Your task to perform on an android device: turn off notifications settings in the gmail app Image 0: 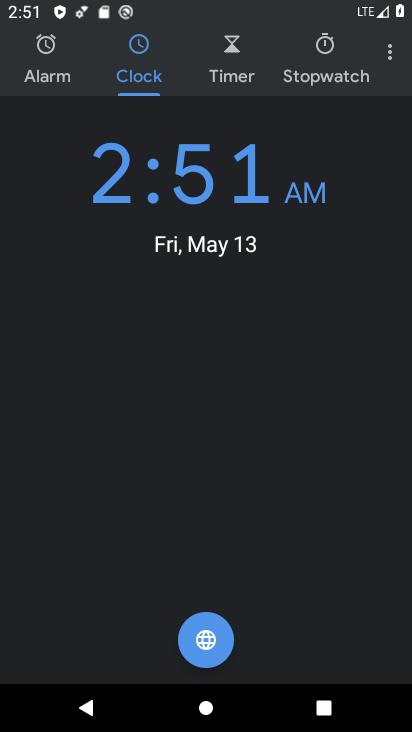
Step 0: press home button
Your task to perform on an android device: turn off notifications settings in the gmail app Image 1: 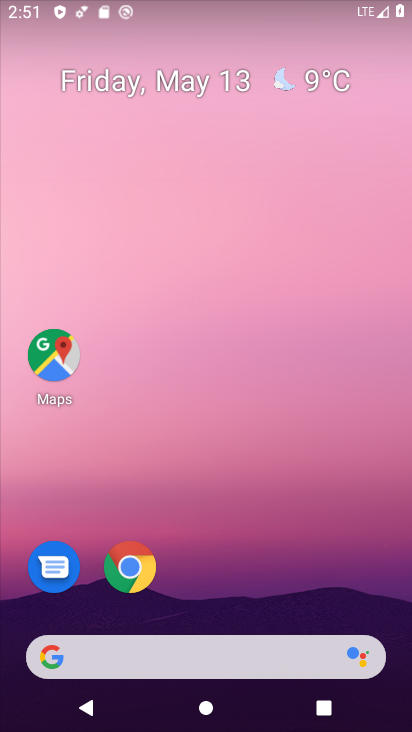
Step 1: drag from (319, 594) to (142, 2)
Your task to perform on an android device: turn off notifications settings in the gmail app Image 2: 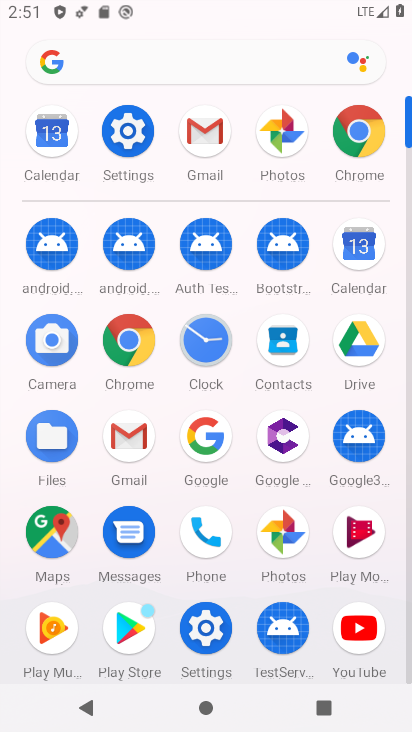
Step 2: click (193, 135)
Your task to perform on an android device: turn off notifications settings in the gmail app Image 3: 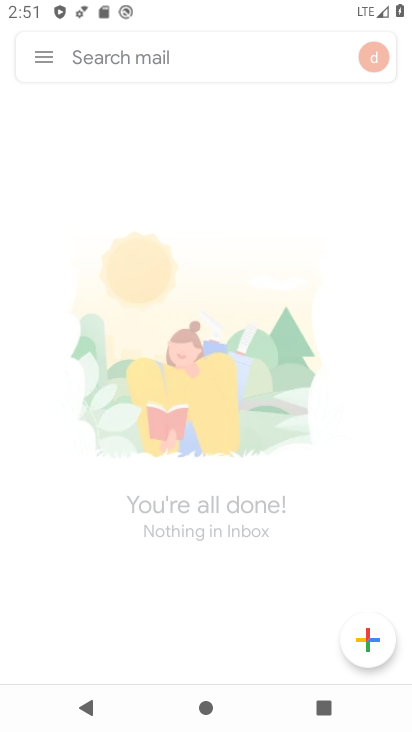
Step 3: click (39, 56)
Your task to perform on an android device: turn off notifications settings in the gmail app Image 4: 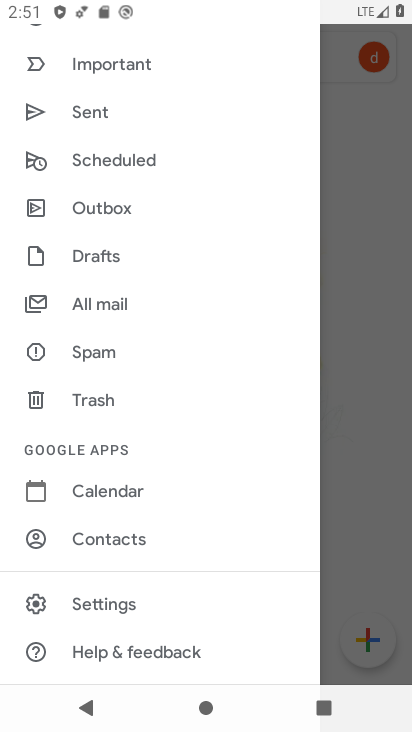
Step 4: click (116, 601)
Your task to perform on an android device: turn off notifications settings in the gmail app Image 5: 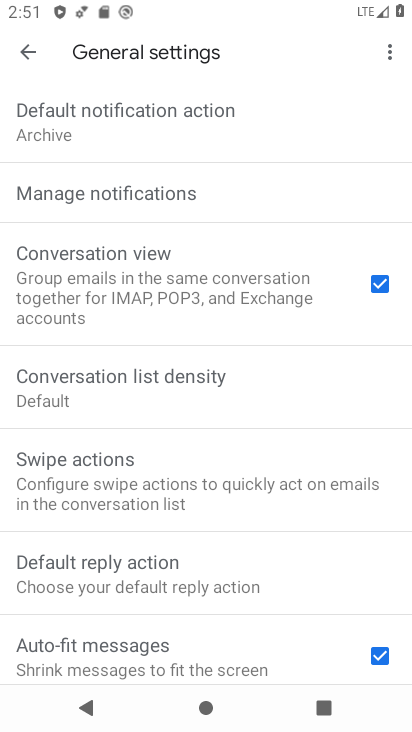
Step 5: click (90, 194)
Your task to perform on an android device: turn off notifications settings in the gmail app Image 6: 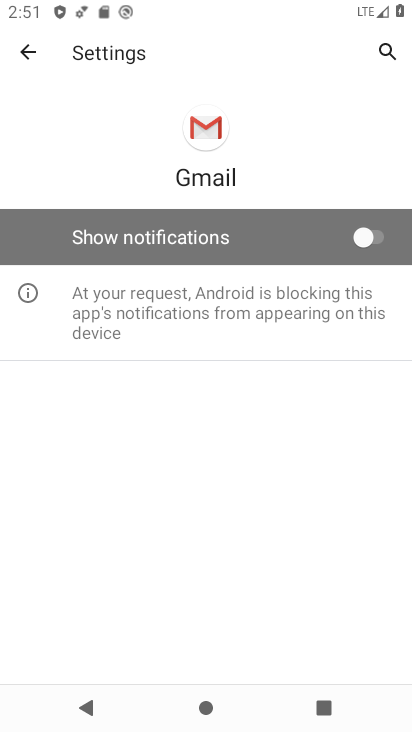
Step 6: task complete